Your task to perform on an android device: Search for Italian restaurants on Maps Image 0: 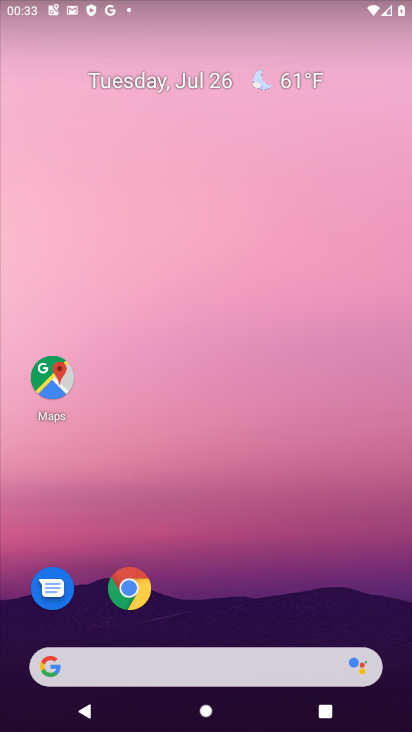
Step 0: press home button
Your task to perform on an android device: Search for Italian restaurants on Maps Image 1: 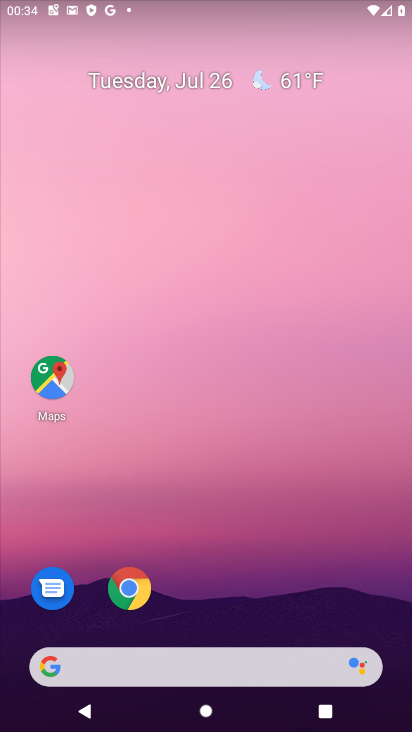
Step 1: click (52, 376)
Your task to perform on an android device: Search for Italian restaurants on Maps Image 2: 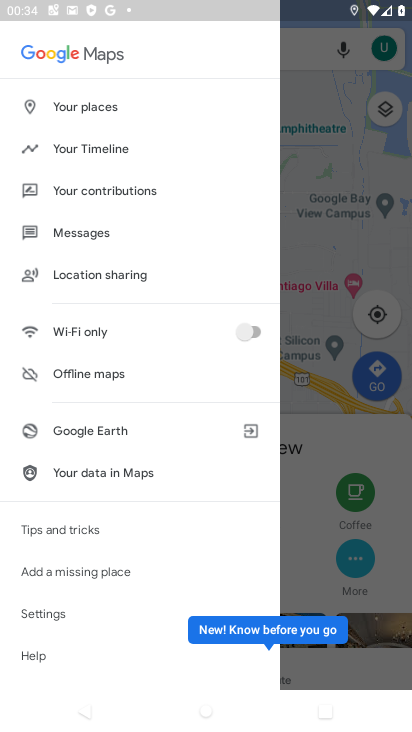
Step 2: click (329, 217)
Your task to perform on an android device: Search for Italian restaurants on Maps Image 3: 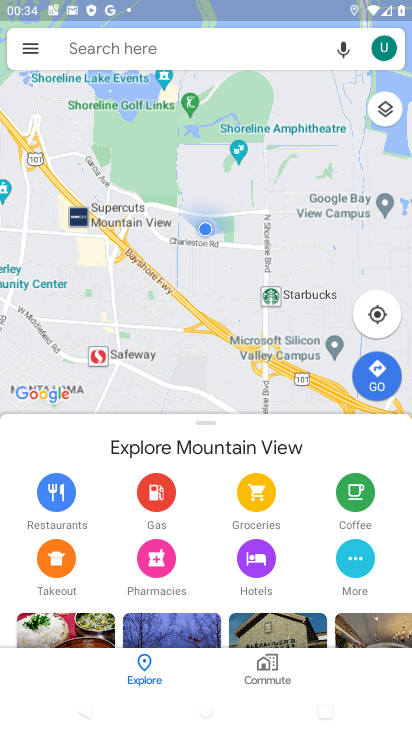
Step 3: click (123, 41)
Your task to perform on an android device: Search for Italian restaurants on Maps Image 4: 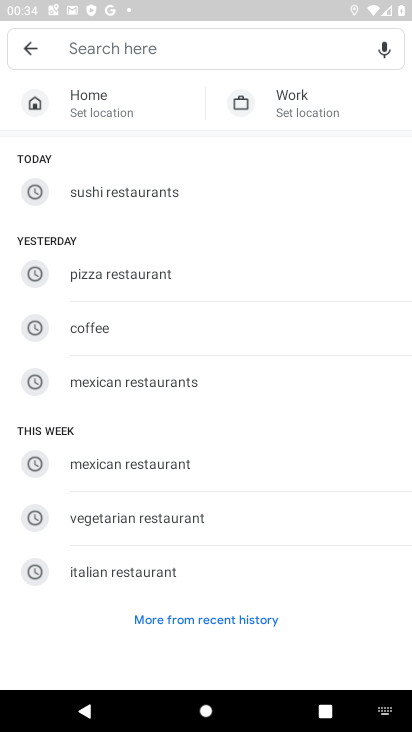
Step 4: click (103, 569)
Your task to perform on an android device: Search for Italian restaurants on Maps Image 5: 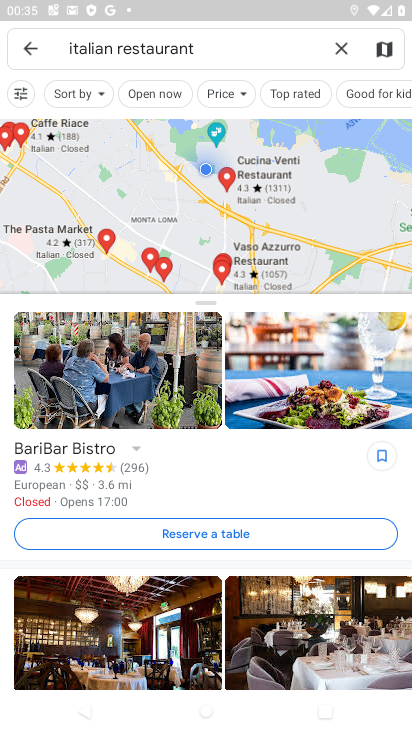
Step 5: task complete